Your task to perform on an android device: delete browsing data in the chrome app Image 0: 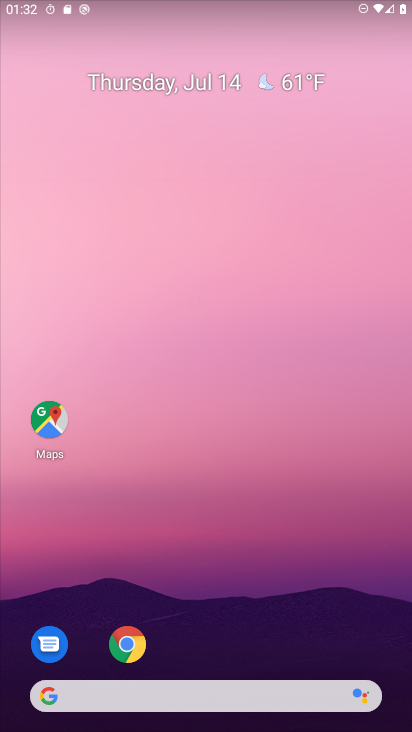
Step 0: drag from (298, 588) to (229, 132)
Your task to perform on an android device: delete browsing data in the chrome app Image 1: 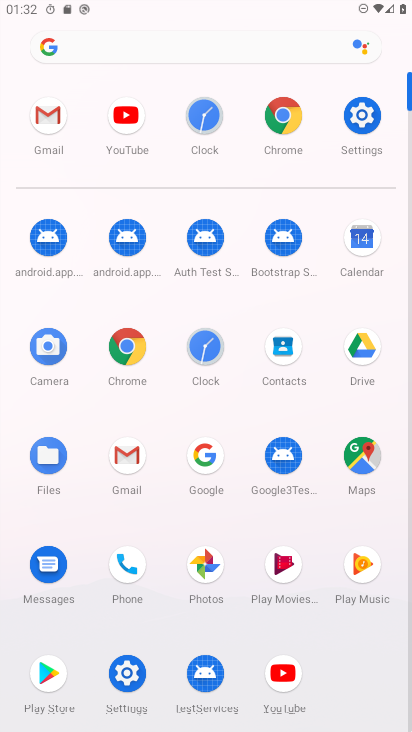
Step 1: click (128, 343)
Your task to perform on an android device: delete browsing data in the chrome app Image 2: 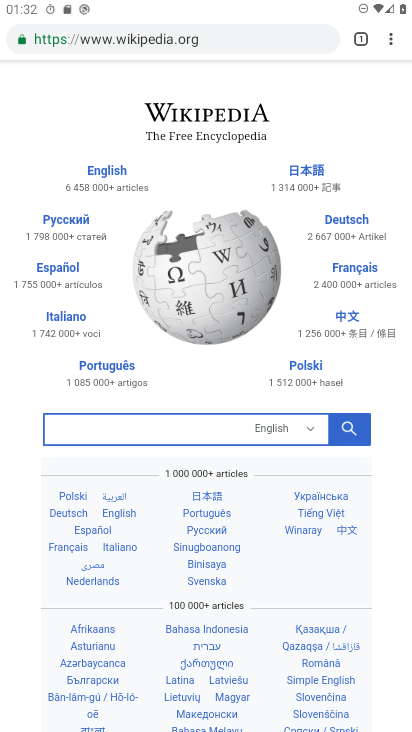
Step 2: drag from (389, 39) to (257, 227)
Your task to perform on an android device: delete browsing data in the chrome app Image 3: 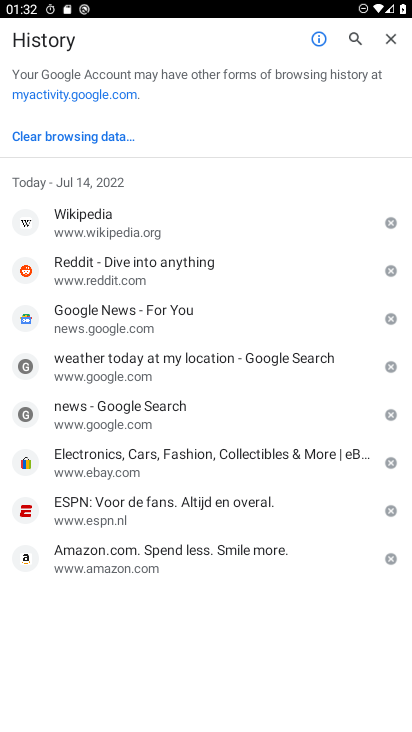
Step 3: click (92, 138)
Your task to perform on an android device: delete browsing data in the chrome app Image 4: 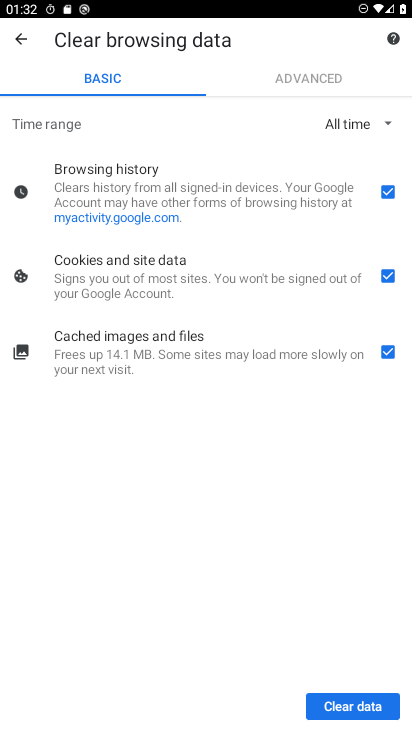
Step 4: click (369, 686)
Your task to perform on an android device: delete browsing data in the chrome app Image 5: 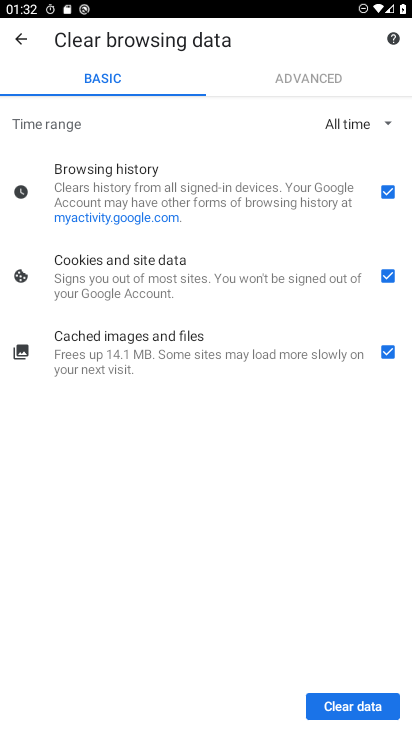
Step 5: click (365, 715)
Your task to perform on an android device: delete browsing data in the chrome app Image 6: 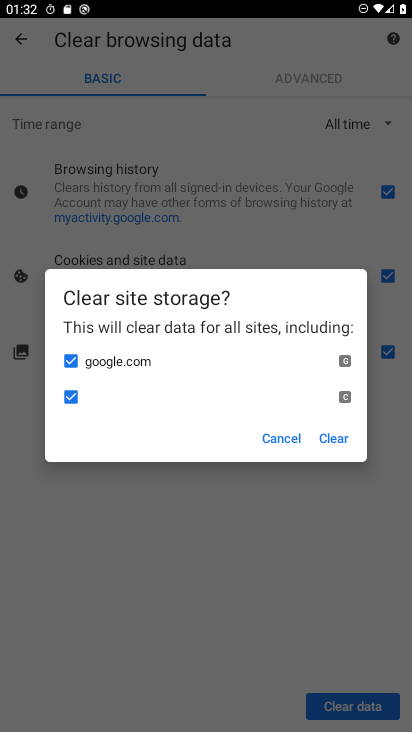
Step 6: click (331, 437)
Your task to perform on an android device: delete browsing data in the chrome app Image 7: 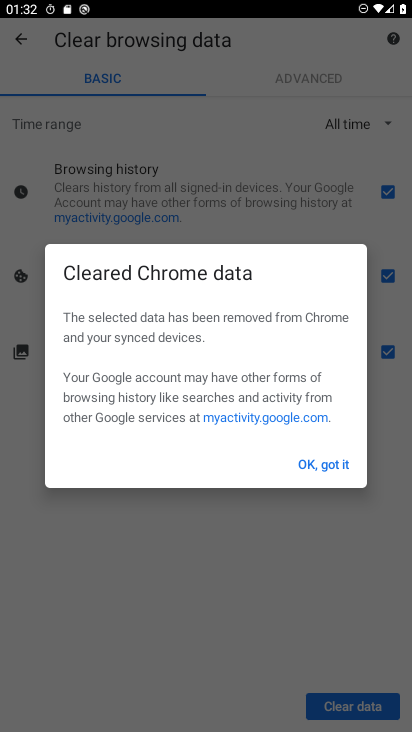
Step 7: task complete